Your task to perform on an android device: Open Google Chrome Image 0: 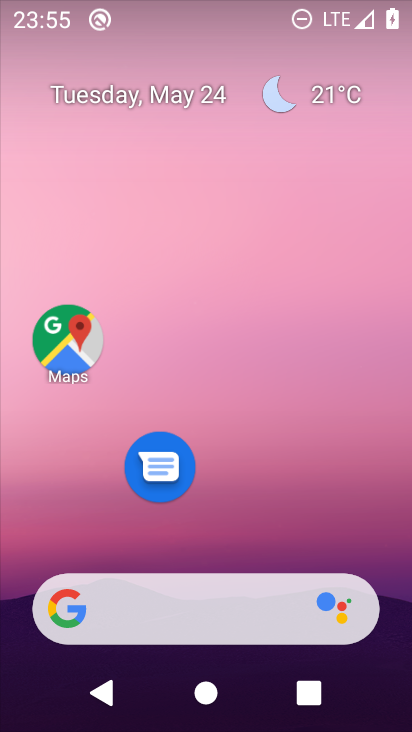
Step 0: click (293, 137)
Your task to perform on an android device: Open Google Chrome Image 1: 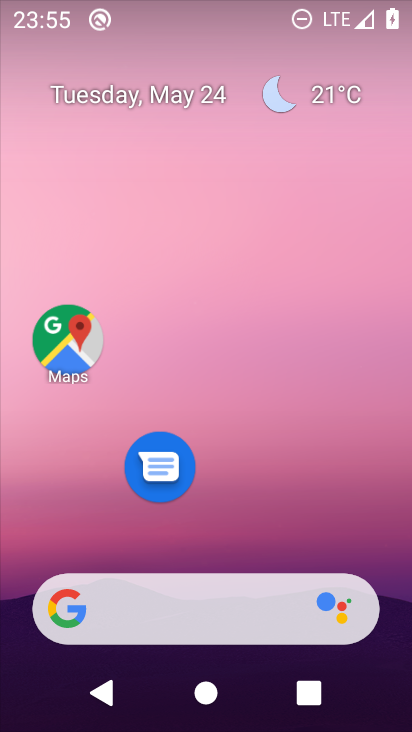
Step 1: drag from (226, 187) to (226, 139)
Your task to perform on an android device: Open Google Chrome Image 2: 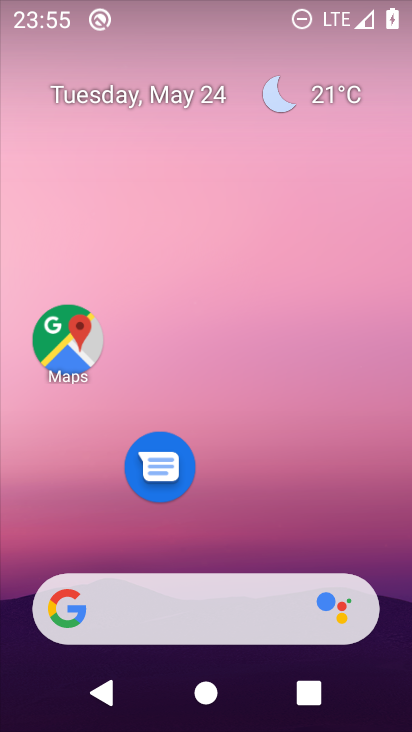
Step 2: drag from (212, 574) to (236, 83)
Your task to perform on an android device: Open Google Chrome Image 3: 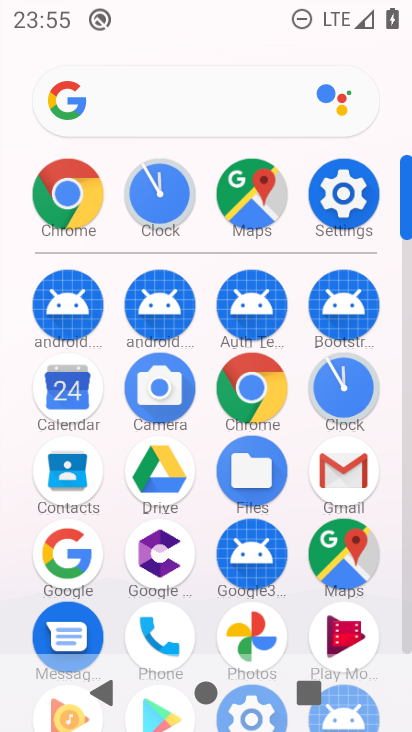
Step 3: click (253, 389)
Your task to perform on an android device: Open Google Chrome Image 4: 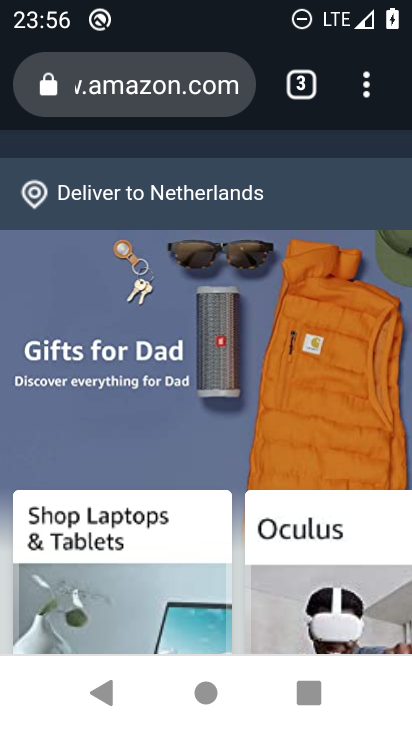
Step 4: click (359, 83)
Your task to perform on an android device: Open Google Chrome Image 5: 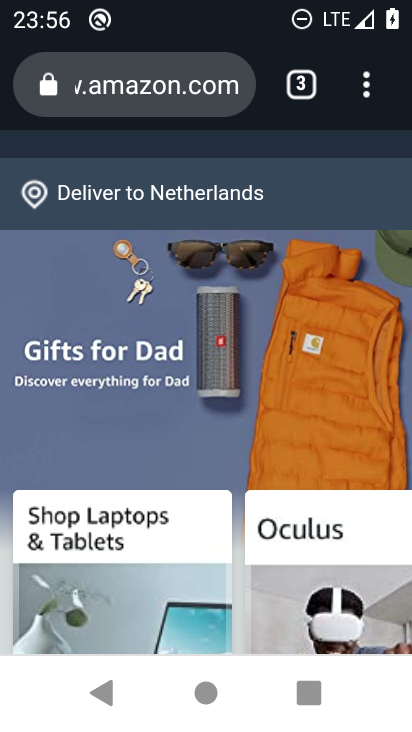
Step 5: task complete